Your task to perform on an android device: Open Chrome and go to settings Image 0: 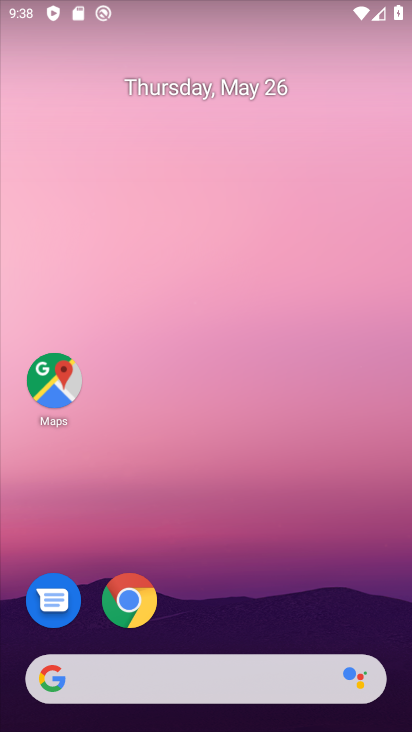
Step 0: click (129, 604)
Your task to perform on an android device: Open Chrome and go to settings Image 1: 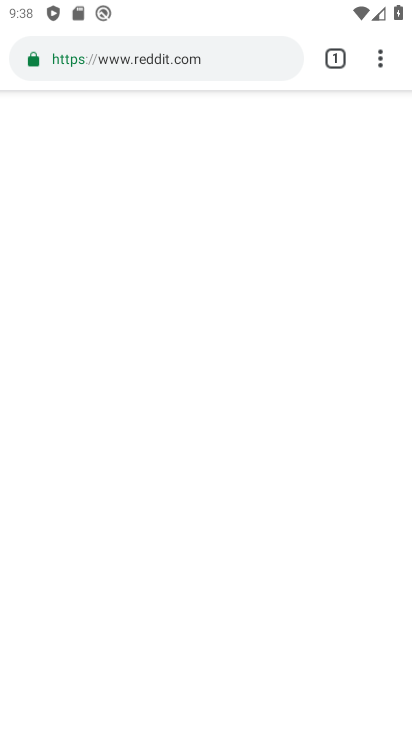
Step 1: click (386, 52)
Your task to perform on an android device: Open Chrome and go to settings Image 2: 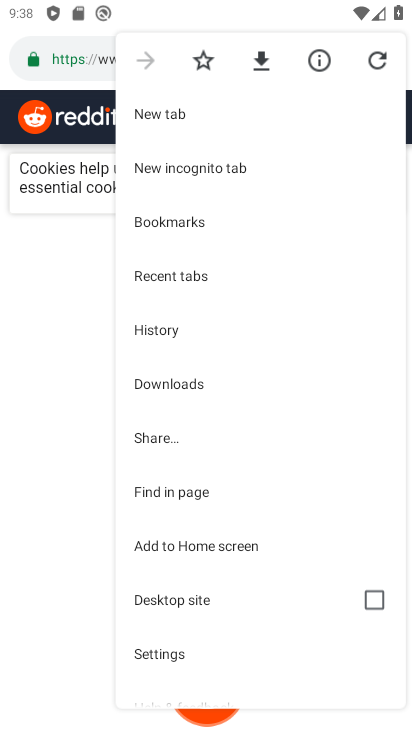
Step 2: click (169, 649)
Your task to perform on an android device: Open Chrome and go to settings Image 3: 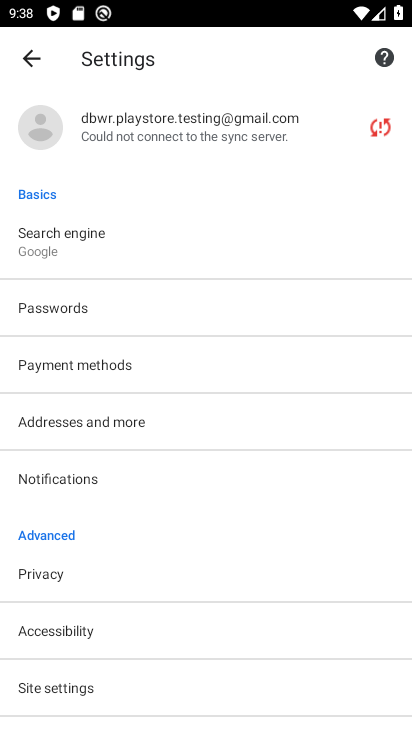
Step 3: task complete